Your task to perform on an android device: Open Chrome and go to settings Image 0: 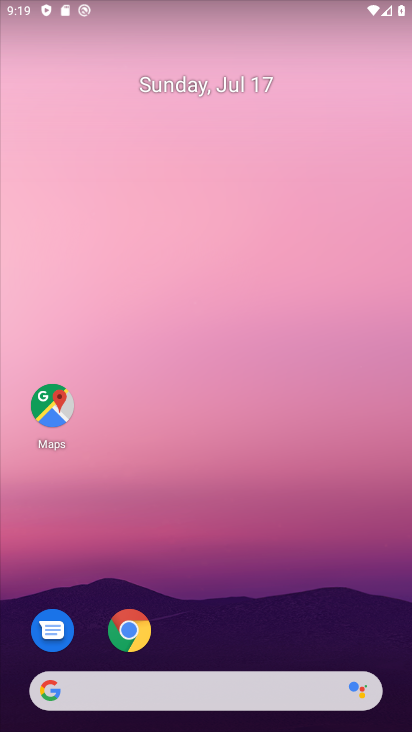
Step 0: click (114, 624)
Your task to perform on an android device: Open Chrome and go to settings Image 1: 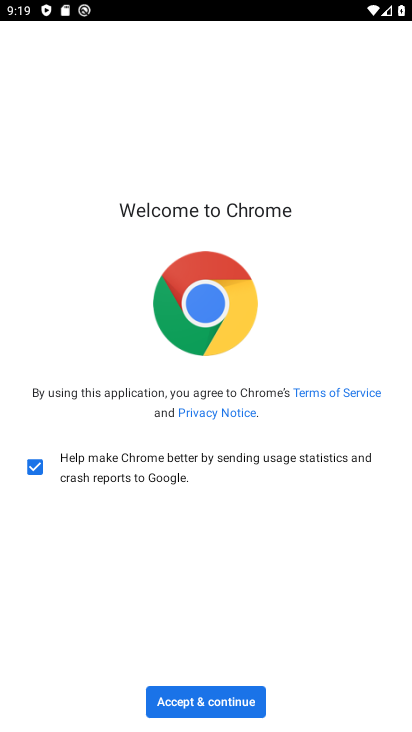
Step 1: click (219, 698)
Your task to perform on an android device: Open Chrome and go to settings Image 2: 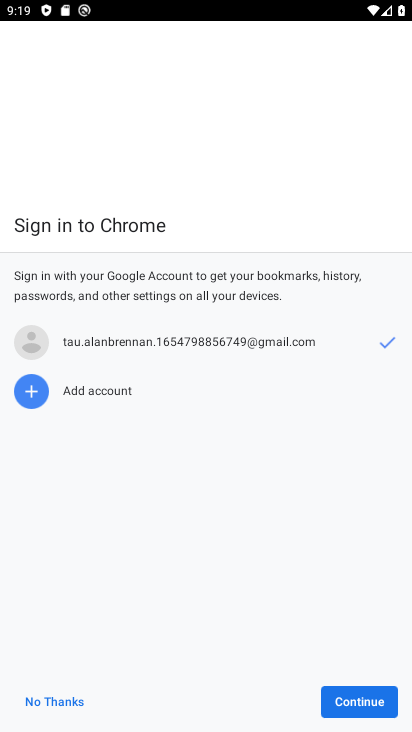
Step 2: click (373, 706)
Your task to perform on an android device: Open Chrome and go to settings Image 3: 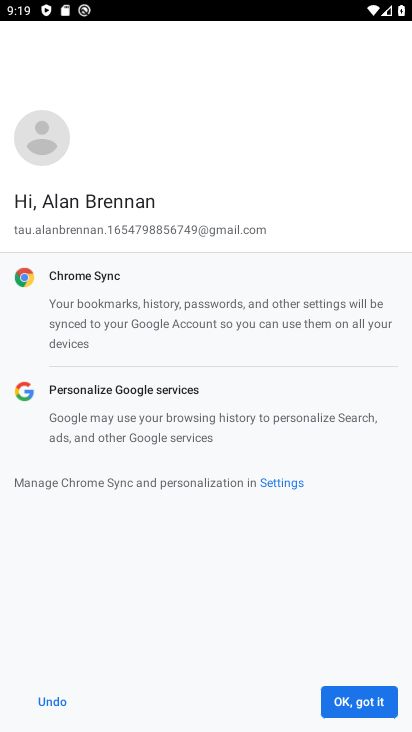
Step 3: click (343, 699)
Your task to perform on an android device: Open Chrome and go to settings Image 4: 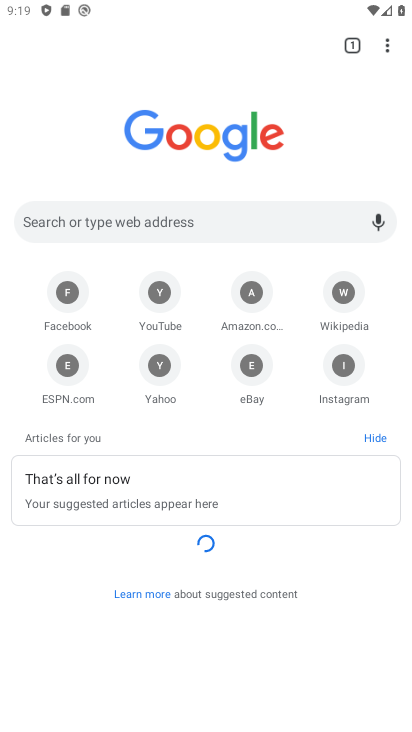
Step 4: click (388, 45)
Your task to perform on an android device: Open Chrome and go to settings Image 5: 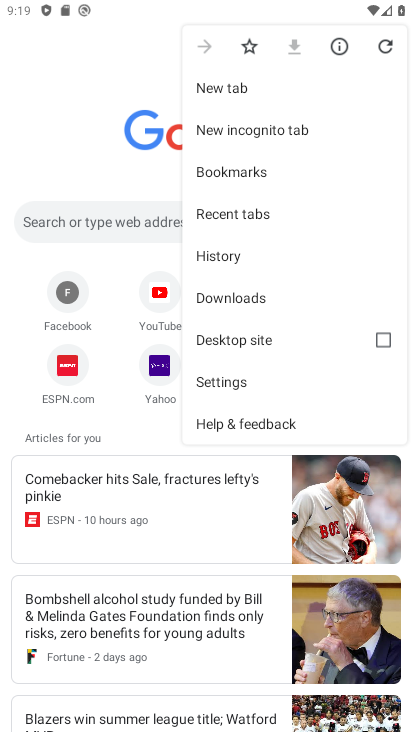
Step 5: click (237, 383)
Your task to perform on an android device: Open Chrome and go to settings Image 6: 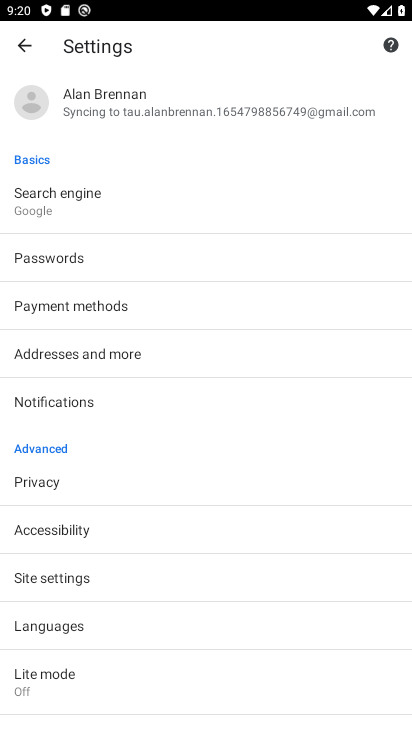
Step 6: task complete